Your task to perform on an android device: add a label to a message in the gmail app Image 0: 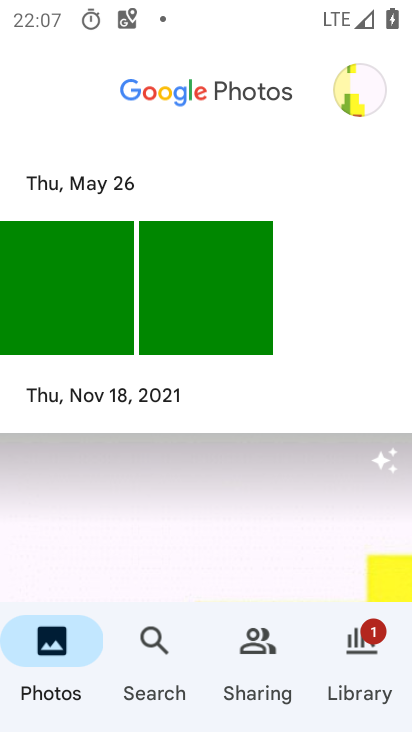
Step 0: press home button
Your task to perform on an android device: add a label to a message in the gmail app Image 1: 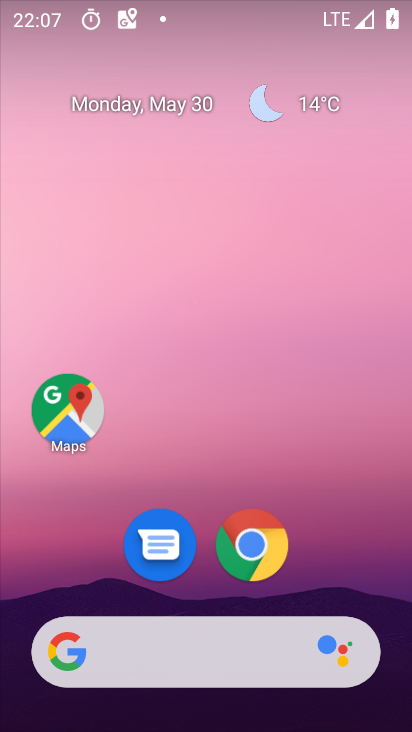
Step 1: drag from (325, 554) to (278, 85)
Your task to perform on an android device: add a label to a message in the gmail app Image 2: 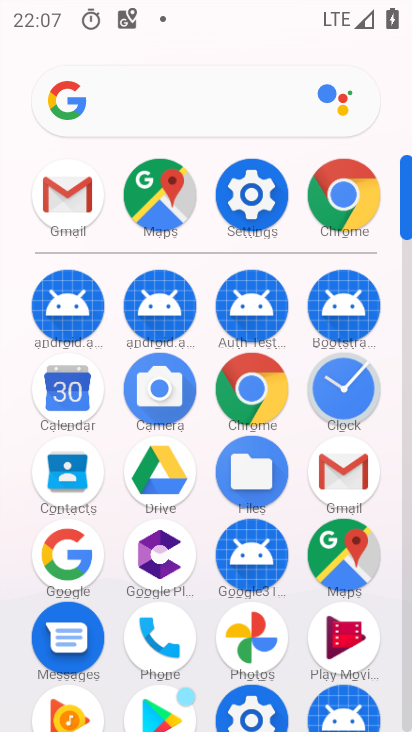
Step 2: click (345, 467)
Your task to perform on an android device: add a label to a message in the gmail app Image 3: 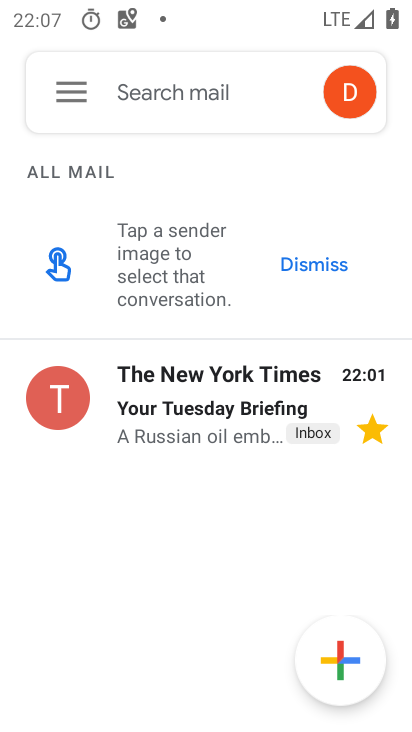
Step 3: click (36, 404)
Your task to perform on an android device: add a label to a message in the gmail app Image 4: 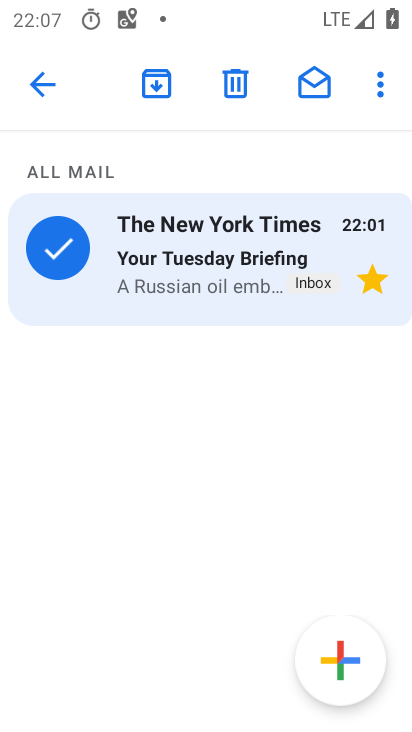
Step 4: click (387, 90)
Your task to perform on an android device: add a label to a message in the gmail app Image 5: 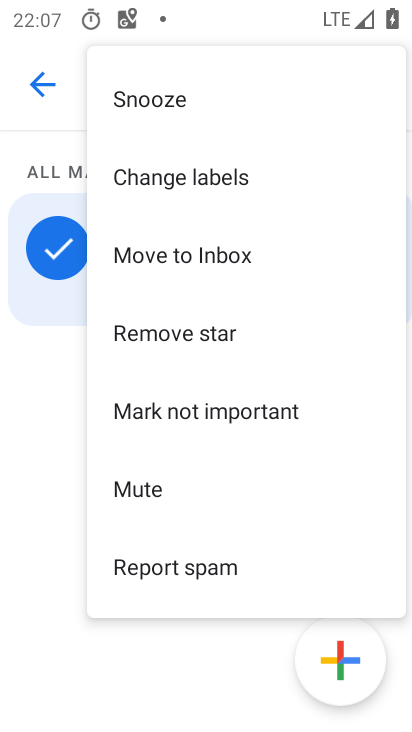
Step 5: click (152, 185)
Your task to perform on an android device: add a label to a message in the gmail app Image 6: 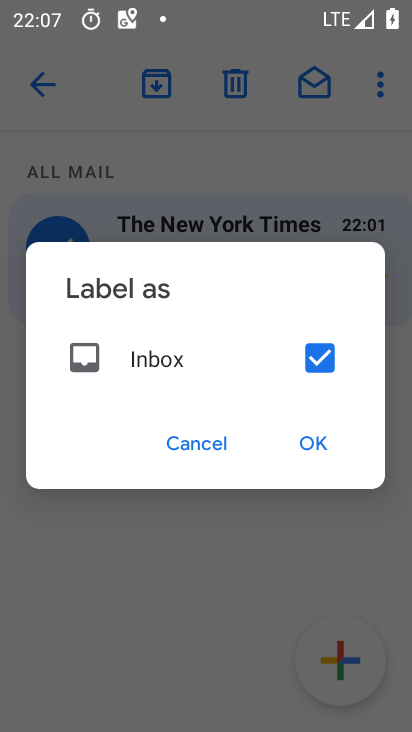
Step 6: click (322, 440)
Your task to perform on an android device: add a label to a message in the gmail app Image 7: 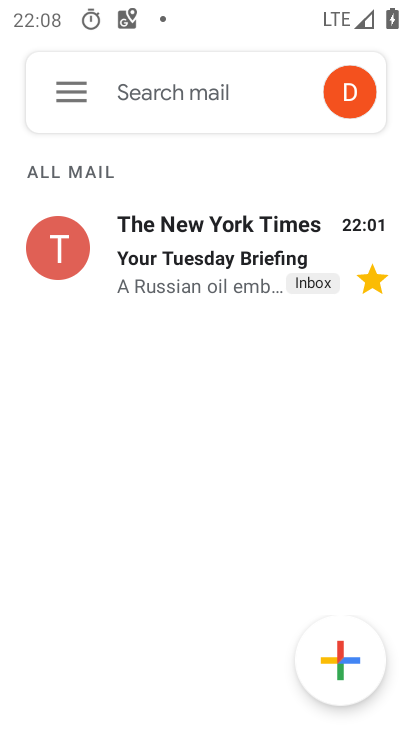
Step 7: task complete